Your task to perform on an android device: find snoozed emails in the gmail app Image 0: 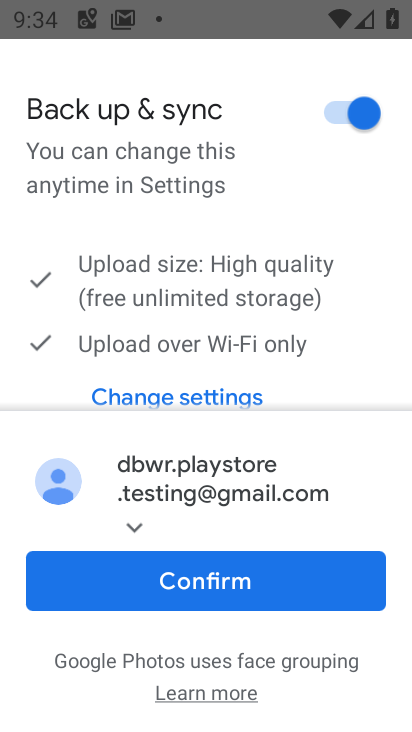
Step 0: press home button
Your task to perform on an android device: find snoozed emails in the gmail app Image 1: 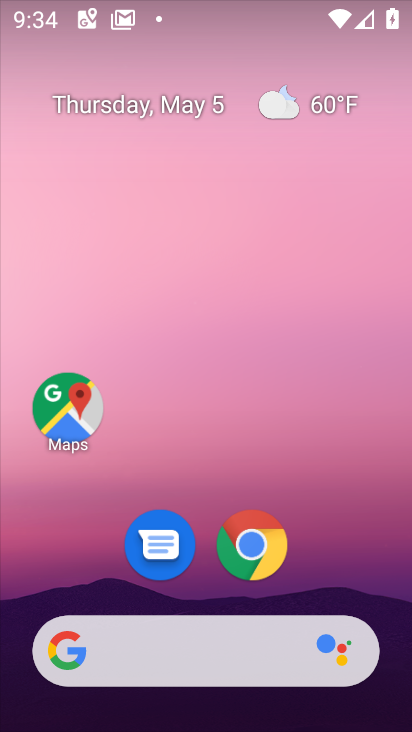
Step 1: drag from (54, 611) to (154, 5)
Your task to perform on an android device: find snoozed emails in the gmail app Image 2: 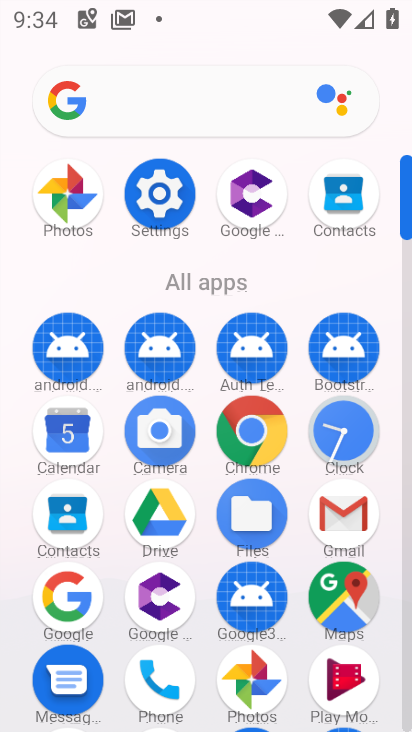
Step 2: click (352, 524)
Your task to perform on an android device: find snoozed emails in the gmail app Image 3: 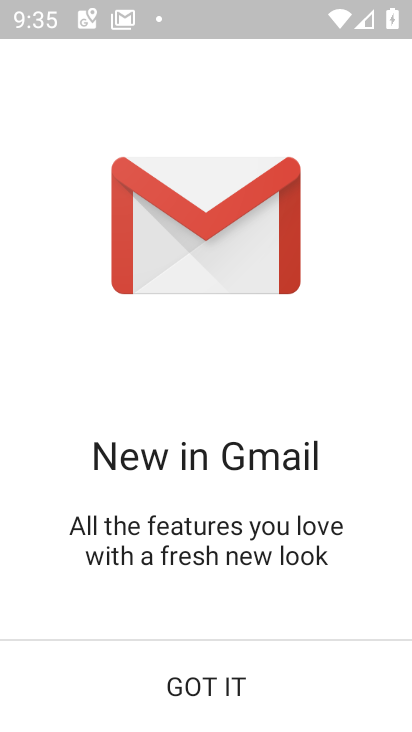
Step 3: click (181, 689)
Your task to perform on an android device: find snoozed emails in the gmail app Image 4: 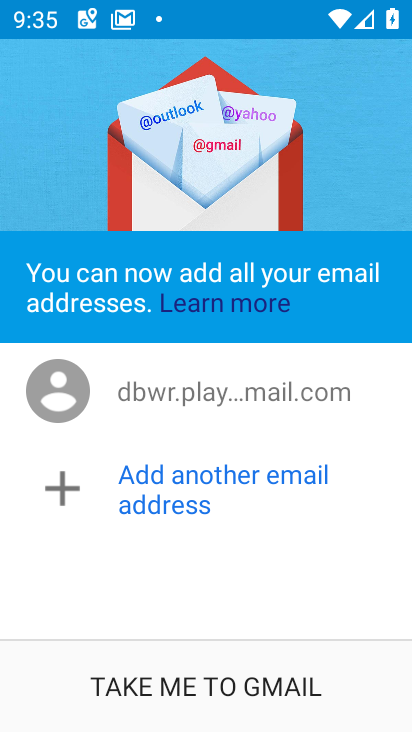
Step 4: click (266, 669)
Your task to perform on an android device: find snoozed emails in the gmail app Image 5: 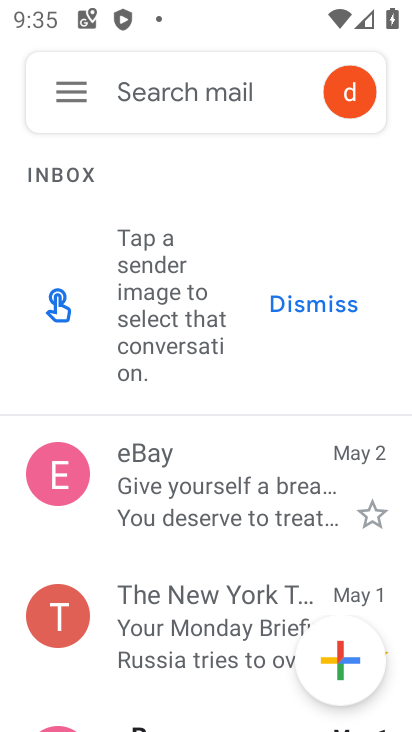
Step 5: click (84, 92)
Your task to perform on an android device: find snoozed emails in the gmail app Image 6: 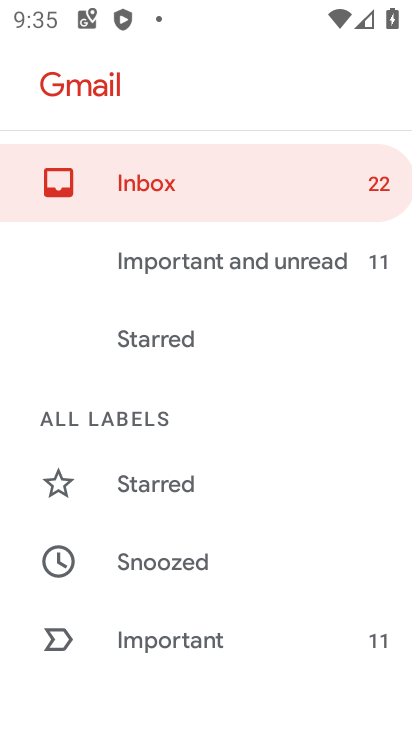
Step 6: click (168, 564)
Your task to perform on an android device: find snoozed emails in the gmail app Image 7: 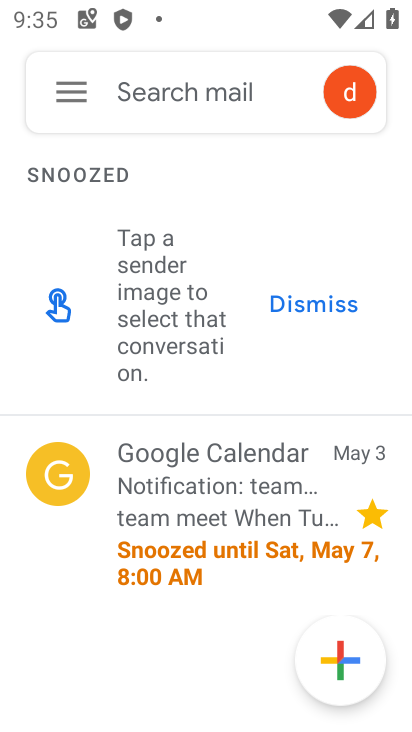
Step 7: task complete